Your task to perform on an android device: Go to battery settings Image 0: 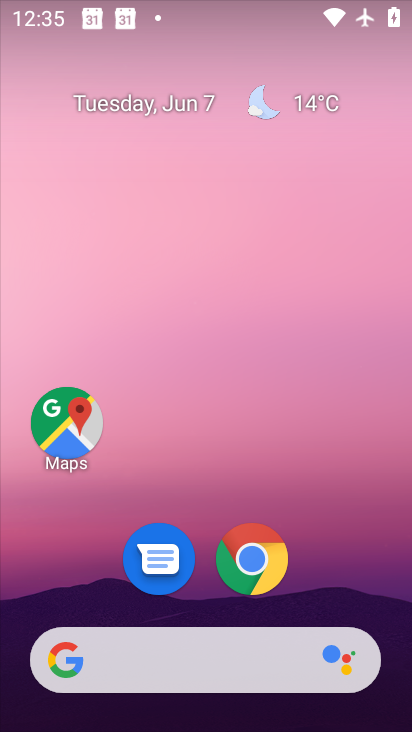
Step 0: drag from (395, 626) to (331, 28)
Your task to perform on an android device: Go to battery settings Image 1: 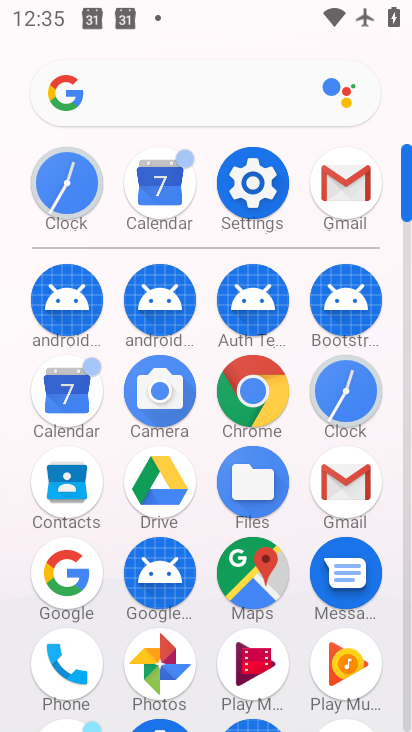
Step 1: click (407, 683)
Your task to perform on an android device: Go to battery settings Image 2: 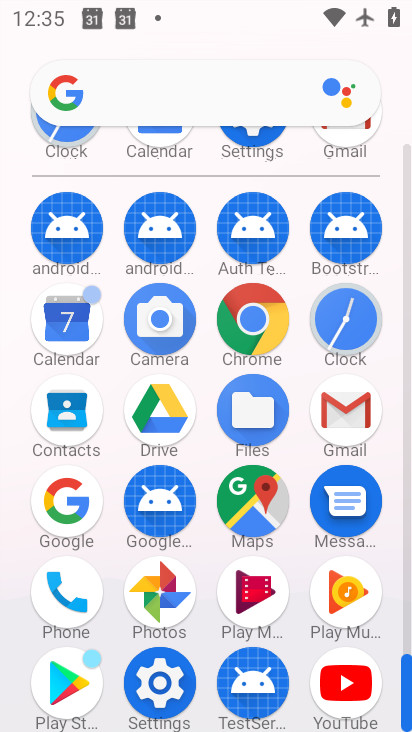
Step 2: click (160, 681)
Your task to perform on an android device: Go to battery settings Image 3: 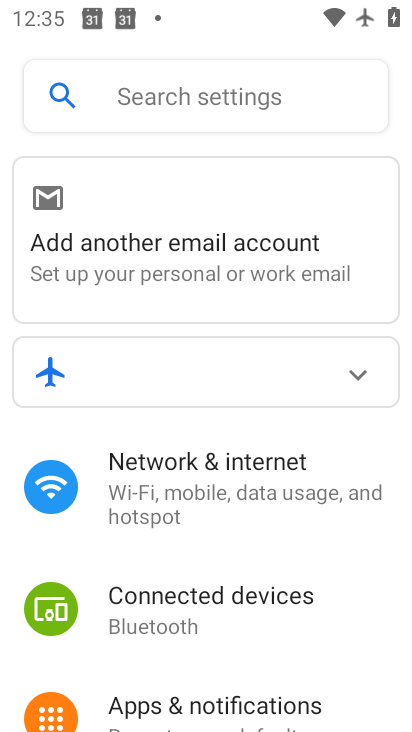
Step 3: drag from (369, 657) to (324, 194)
Your task to perform on an android device: Go to battery settings Image 4: 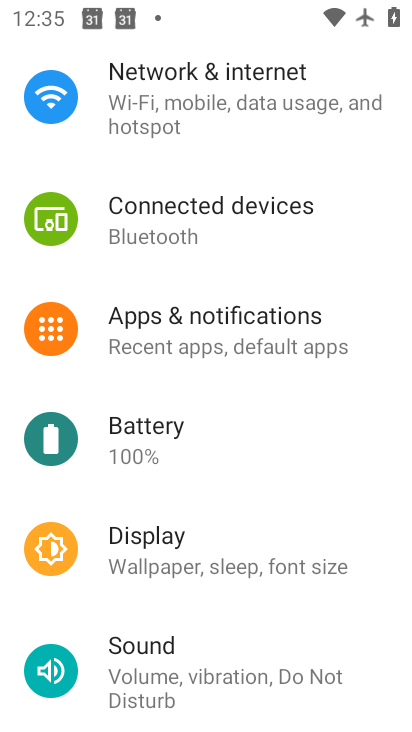
Step 4: click (146, 419)
Your task to perform on an android device: Go to battery settings Image 5: 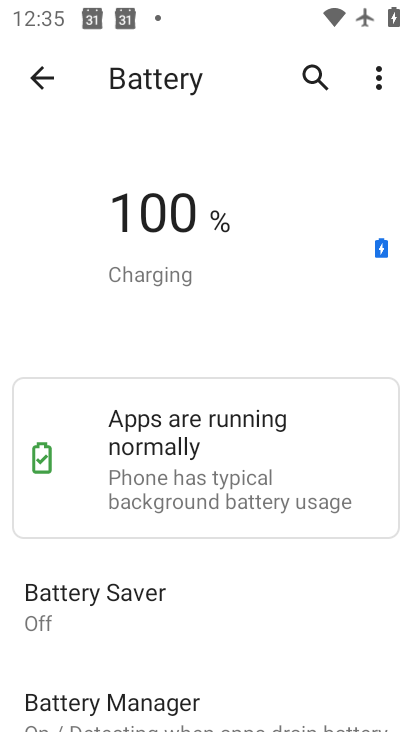
Step 5: click (355, 284)
Your task to perform on an android device: Go to battery settings Image 6: 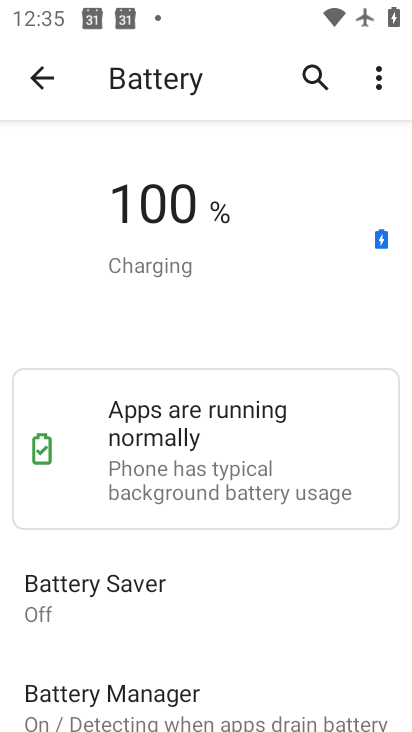
Step 6: task complete